Your task to perform on an android device: Open calendar and show me the second week of next month Image 0: 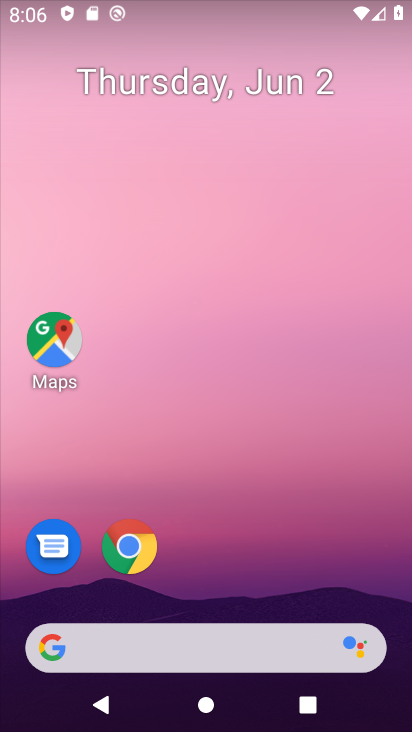
Step 0: drag from (255, 678) to (185, 182)
Your task to perform on an android device: Open calendar and show me the second week of next month Image 1: 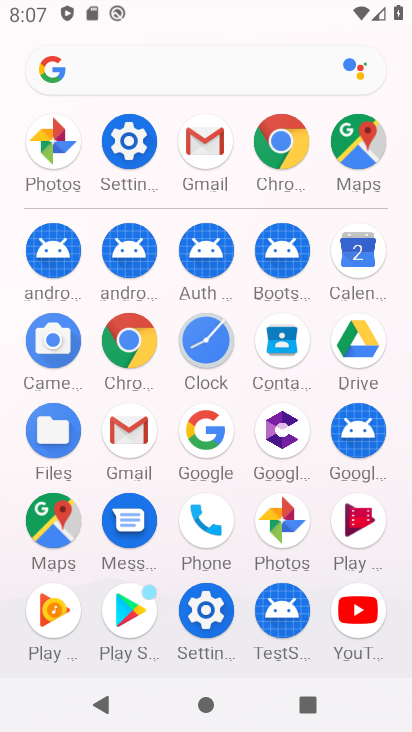
Step 1: click (358, 252)
Your task to perform on an android device: Open calendar and show me the second week of next month Image 2: 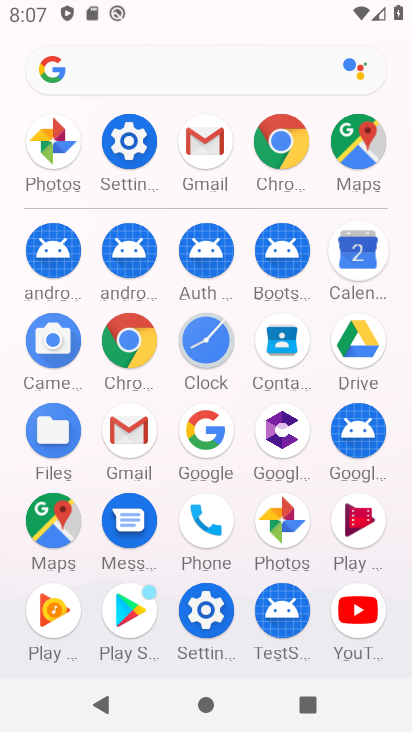
Step 2: click (358, 252)
Your task to perform on an android device: Open calendar and show me the second week of next month Image 3: 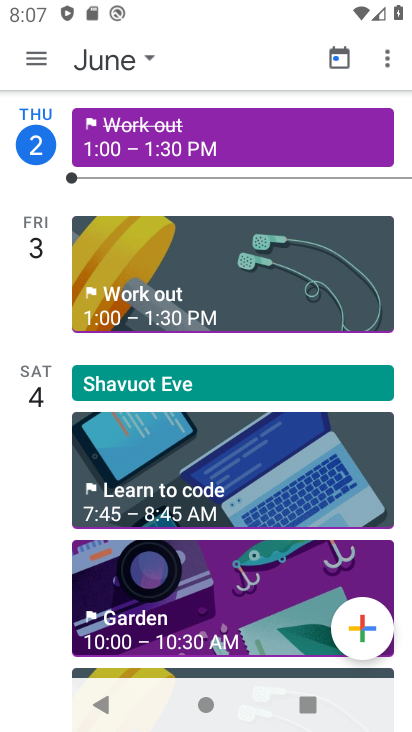
Step 3: click (141, 61)
Your task to perform on an android device: Open calendar and show me the second week of next month Image 4: 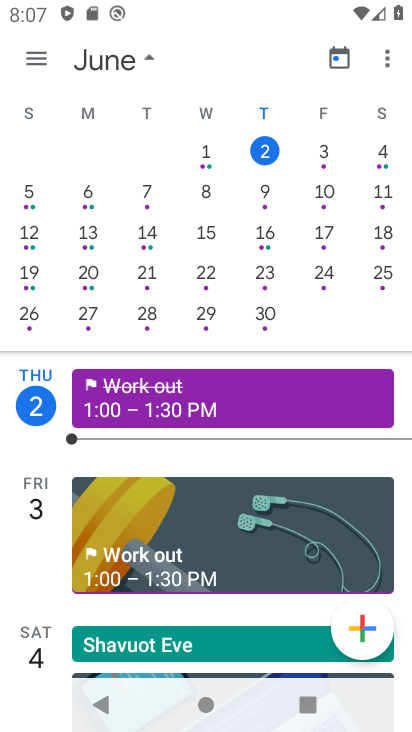
Step 4: drag from (307, 243) to (5, 279)
Your task to perform on an android device: Open calendar and show me the second week of next month Image 5: 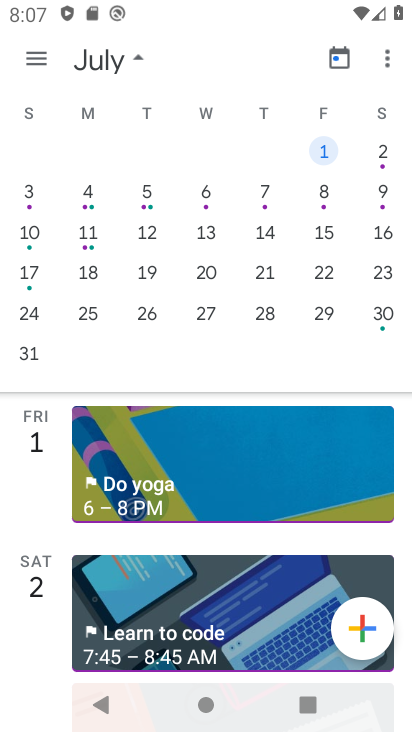
Step 5: click (321, 195)
Your task to perform on an android device: Open calendar and show me the second week of next month Image 6: 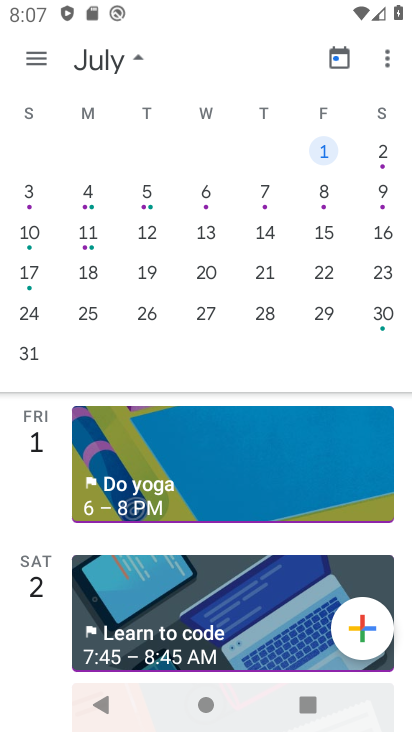
Step 6: click (321, 195)
Your task to perform on an android device: Open calendar and show me the second week of next month Image 7: 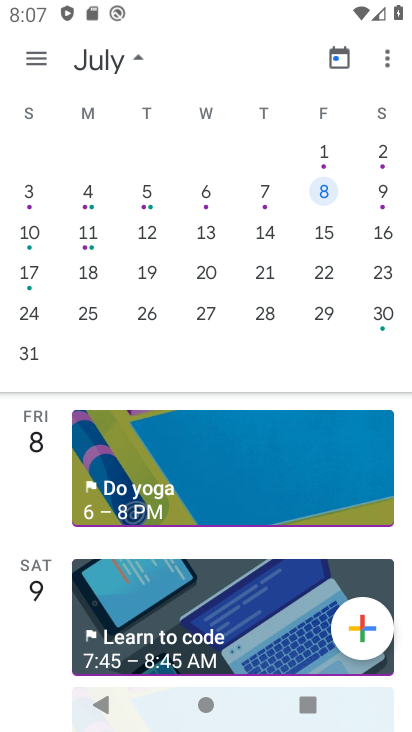
Step 7: click (321, 194)
Your task to perform on an android device: Open calendar and show me the second week of next month Image 8: 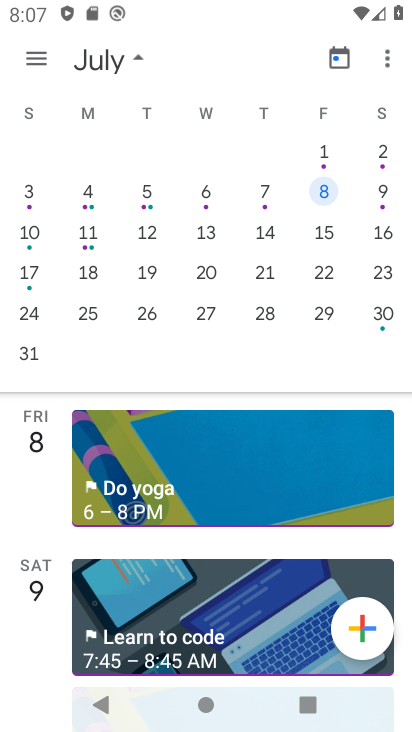
Step 8: task complete